Your task to perform on an android device: Open maps Image 0: 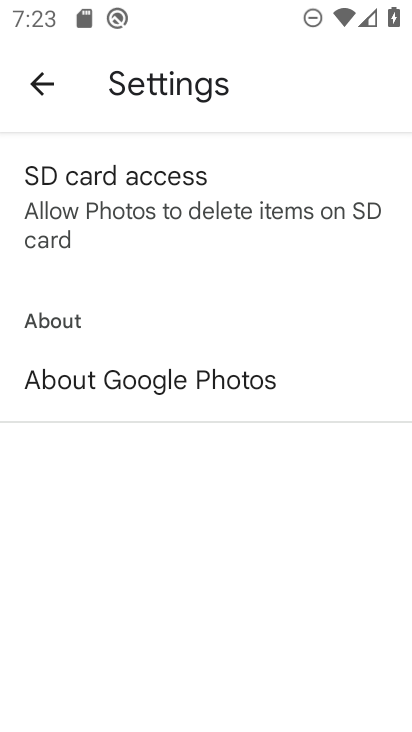
Step 0: press home button
Your task to perform on an android device: Open maps Image 1: 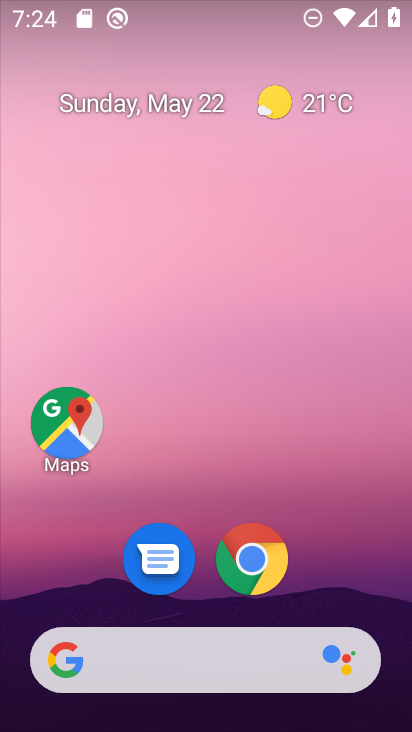
Step 1: drag from (230, 662) to (406, 176)
Your task to perform on an android device: Open maps Image 2: 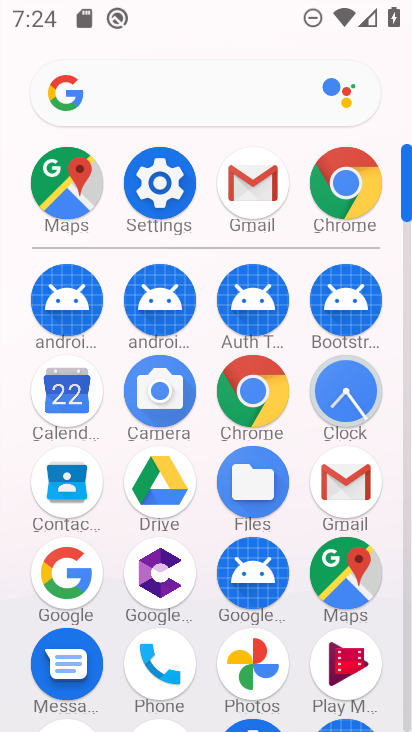
Step 2: click (64, 194)
Your task to perform on an android device: Open maps Image 3: 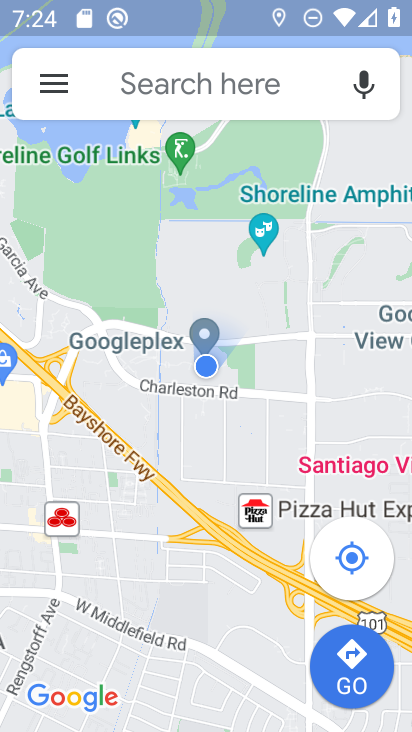
Step 3: click (358, 556)
Your task to perform on an android device: Open maps Image 4: 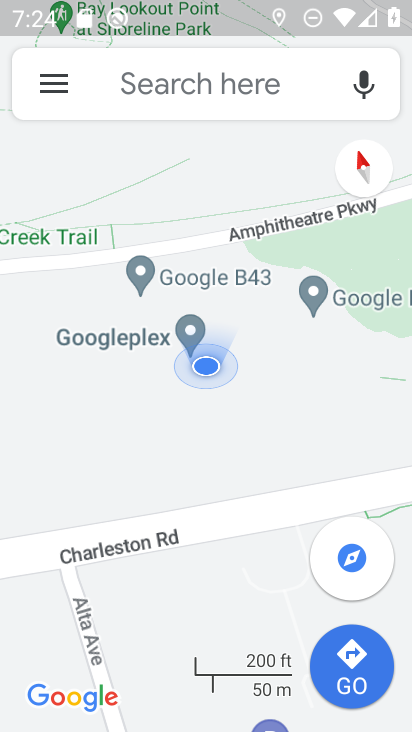
Step 4: task complete